Your task to perform on an android device: turn on improve location accuracy Image 0: 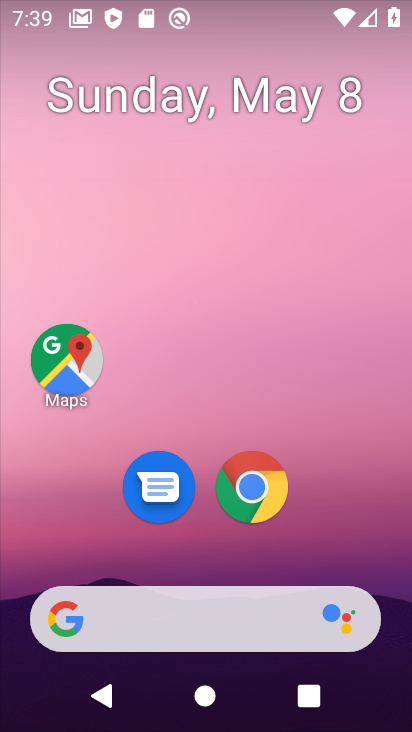
Step 0: drag from (309, 507) to (319, 32)
Your task to perform on an android device: turn on improve location accuracy Image 1: 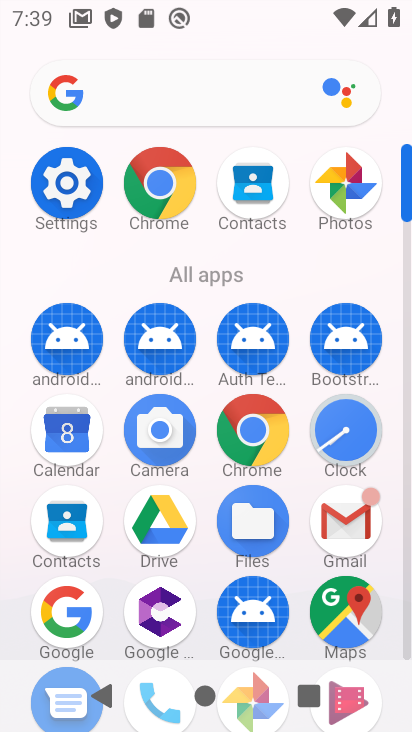
Step 1: click (84, 191)
Your task to perform on an android device: turn on improve location accuracy Image 2: 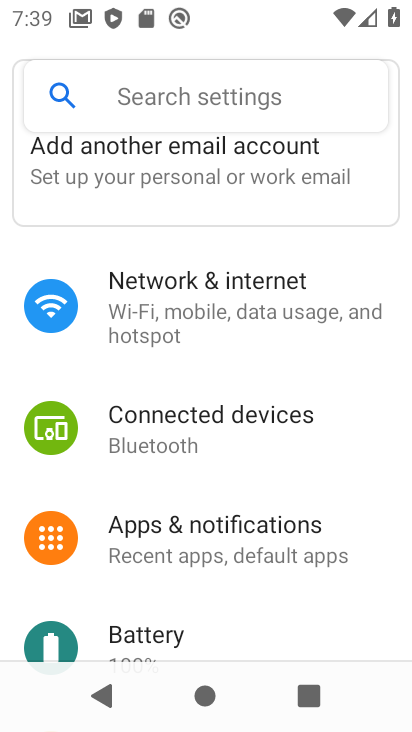
Step 2: drag from (195, 547) to (237, 301)
Your task to perform on an android device: turn on improve location accuracy Image 3: 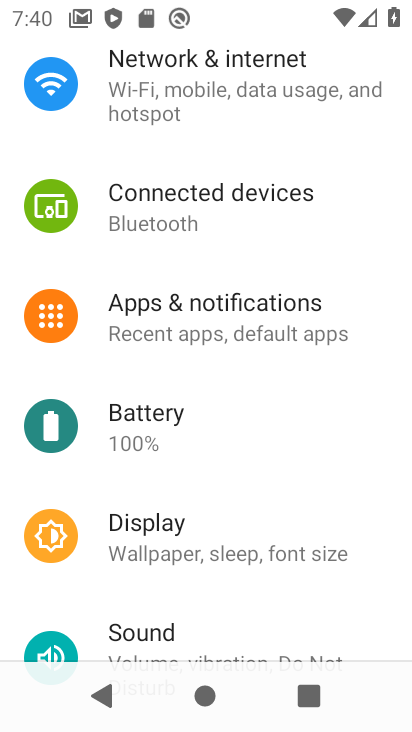
Step 3: drag from (232, 512) to (249, 232)
Your task to perform on an android device: turn on improve location accuracy Image 4: 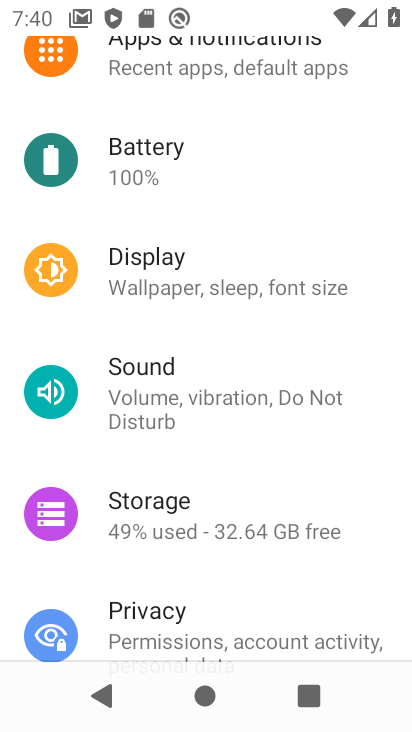
Step 4: drag from (228, 599) to (240, 356)
Your task to perform on an android device: turn on improve location accuracy Image 5: 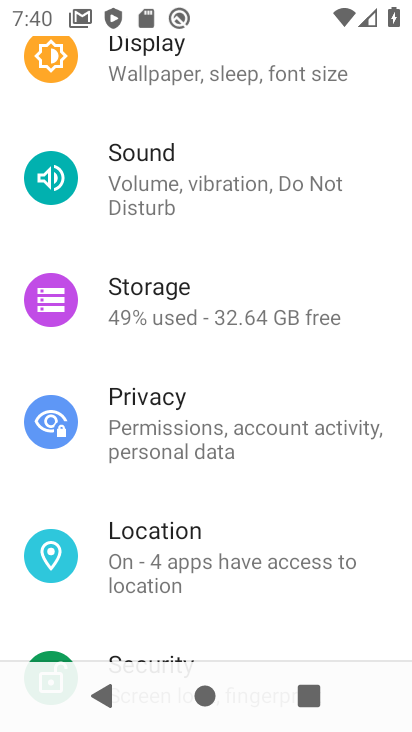
Step 5: drag from (217, 521) to (250, 250)
Your task to perform on an android device: turn on improve location accuracy Image 6: 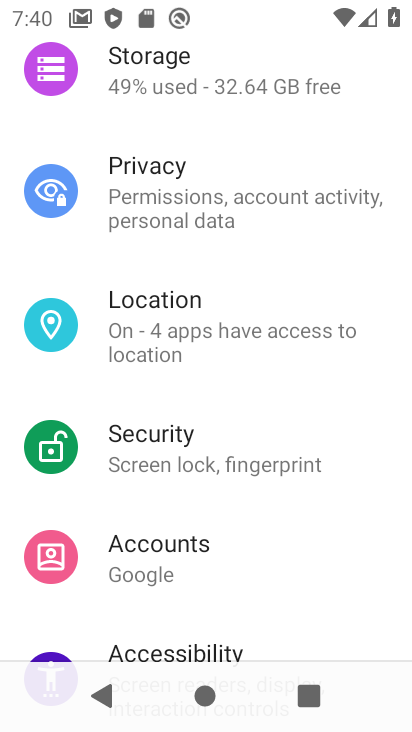
Step 6: click (227, 325)
Your task to perform on an android device: turn on improve location accuracy Image 7: 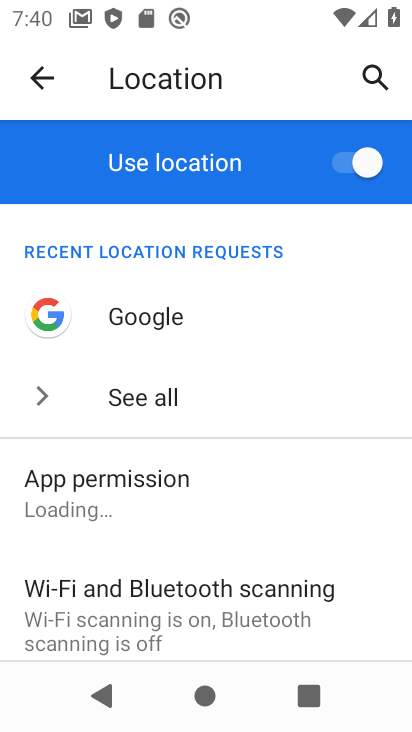
Step 7: drag from (177, 532) to (195, 365)
Your task to perform on an android device: turn on improve location accuracy Image 8: 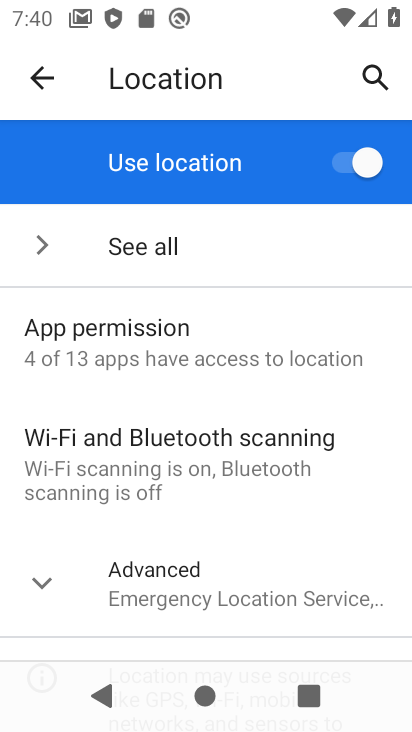
Step 8: click (190, 564)
Your task to perform on an android device: turn on improve location accuracy Image 9: 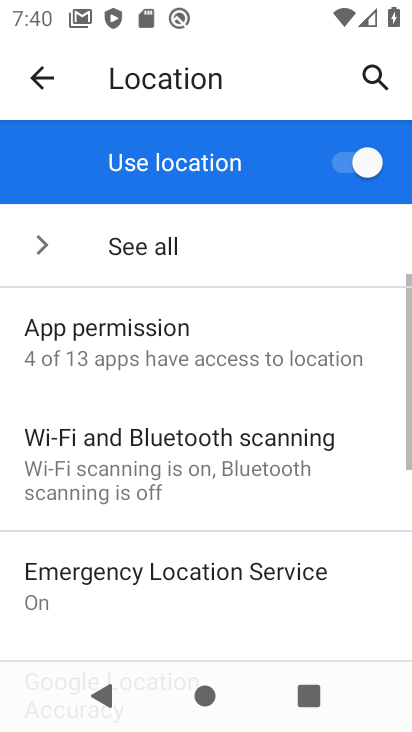
Step 9: drag from (190, 564) to (211, 340)
Your task to perform on an android device: turn on improve location accuracy Image 10: 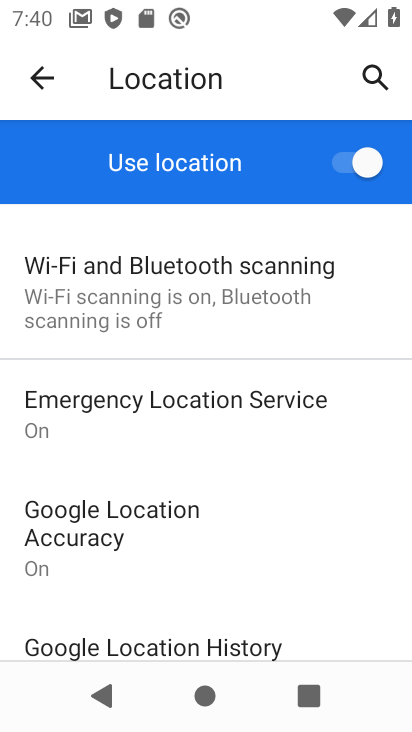
Step 10: click (176, 522)
Your task to perform on an android device: turn on improve location accuracy Image 11: 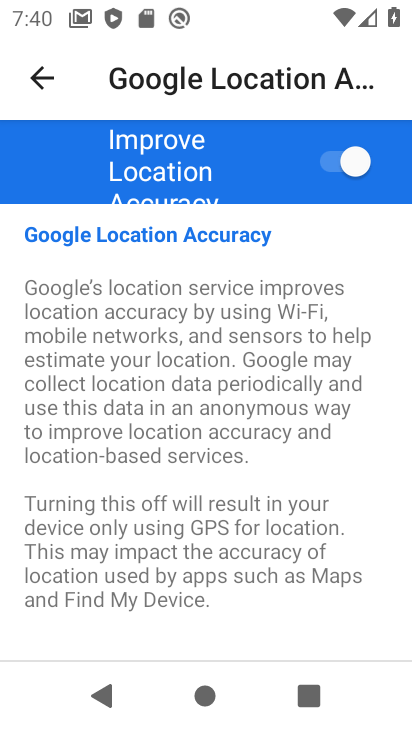
Step 11: task complete